Your task to perform on an android device: When is my next meeting? Image 0: 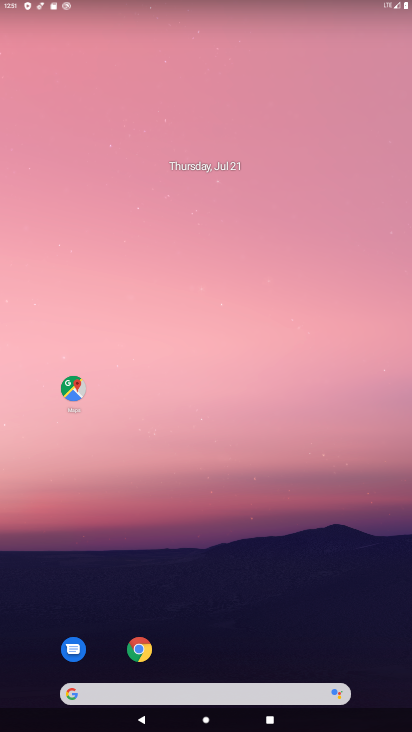
Step 0: drag from (193, 684) to (202, 332)
Your task to perform on an android device: When is my next meeting? Image 1: 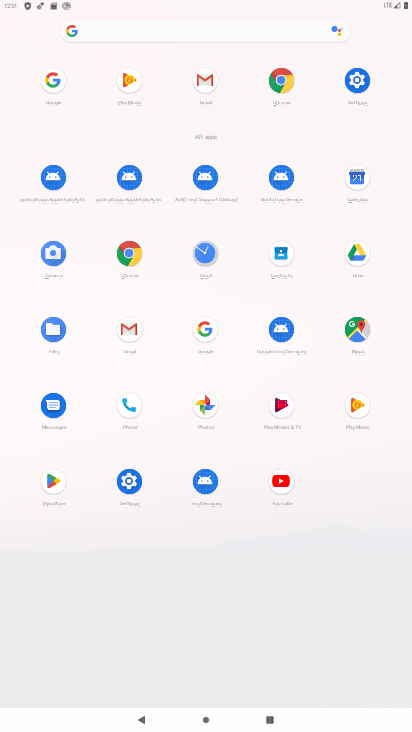
Step 1: click (365, 186)
Your task to perform on an android device: When is my next meeting? Image 2: 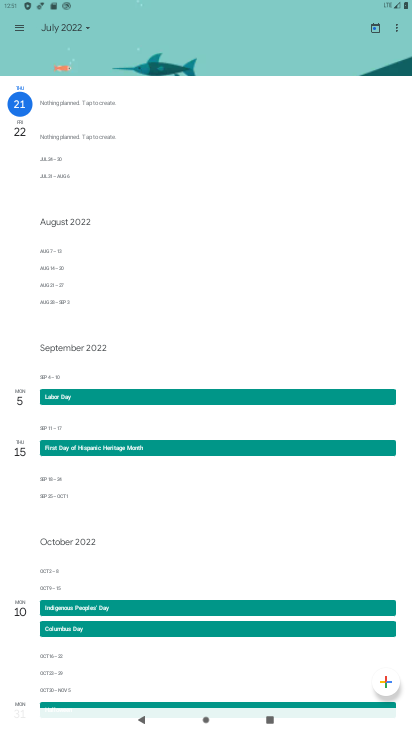
Step 2: click (74, 27)
Your task to perform on an android device: When is my next meeting? Image 3: 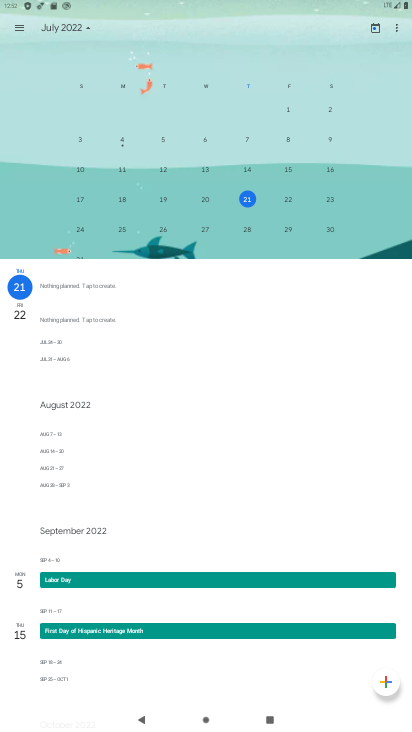
Step 3: click (12, 27)
Your task to perform on an android device: When is my next meeting? Image 4: 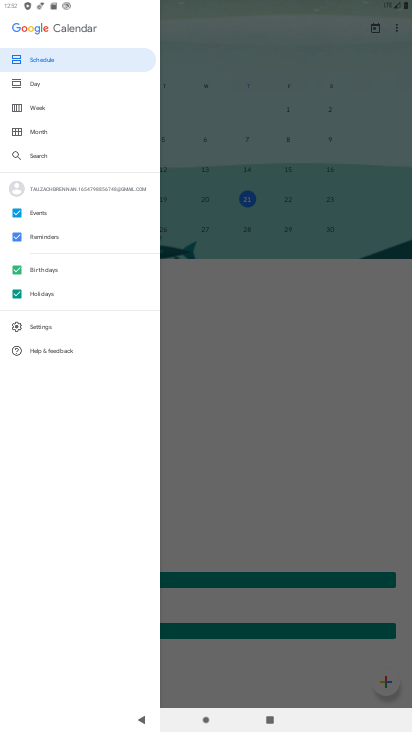
Step 4: click (42, 68)
Your task to perform on an android device: When is my next meeting? Image 5: 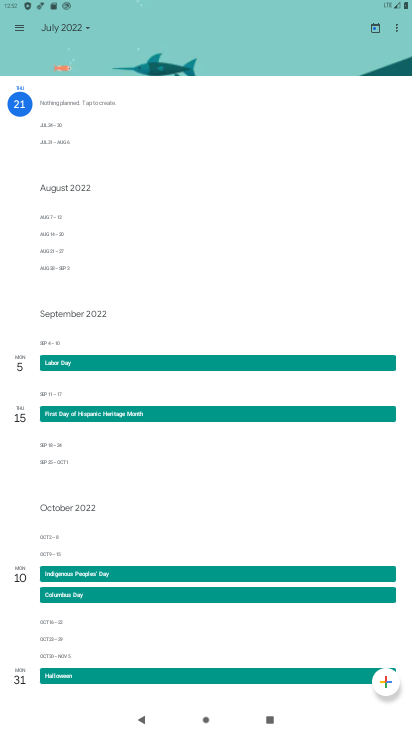
Step 5: task complete